Your task to perform on an android device: Go to CNN.com Image 0: 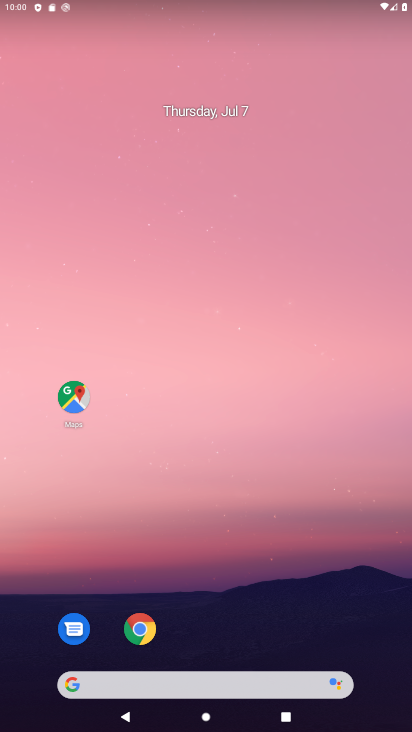
Step 0: press home button
Your task to perform on an android device: Go to CNN.com Image 1: 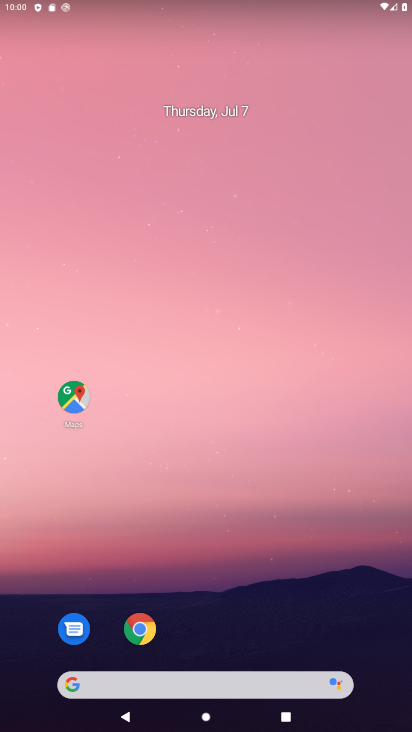
Step 1: click (77, 688)
Your task to perform on an android device: Go to CNN.com Image 2: 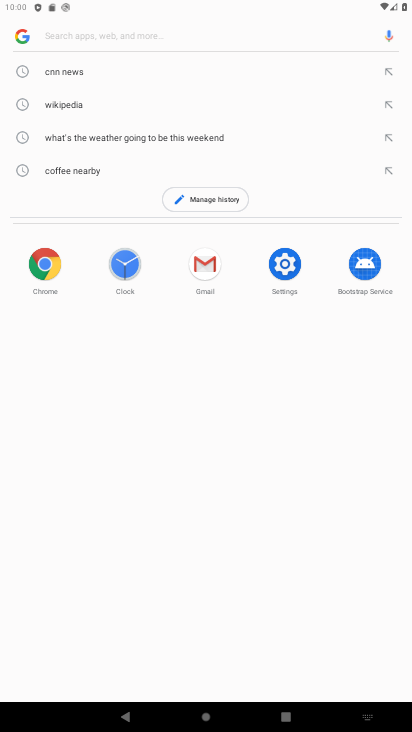
Step 2: type "cnn.com"
Your task to perform on an android device: Go to CNN.com Image 3: 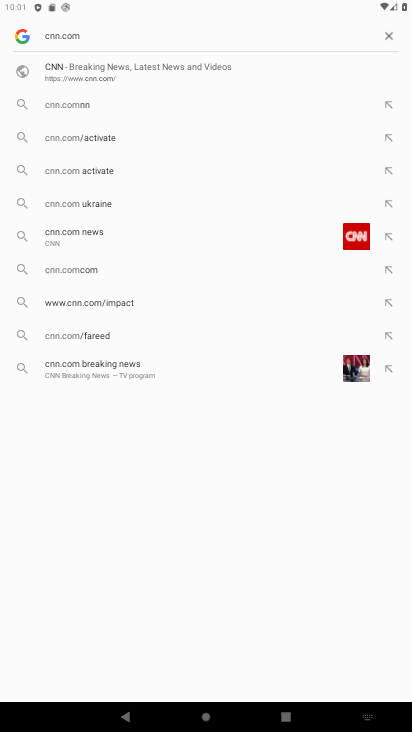
Step 3: click (75, 67)
Your task to perform on an android device: Go to CNN.com Image 4: 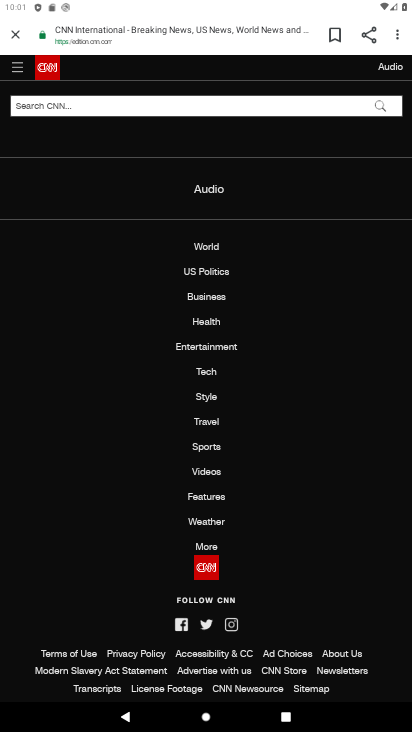
Step 4: task complete